Your task to perform on an android device: Open the calendar app, open the side menu, and click the "Day" option Image 0: 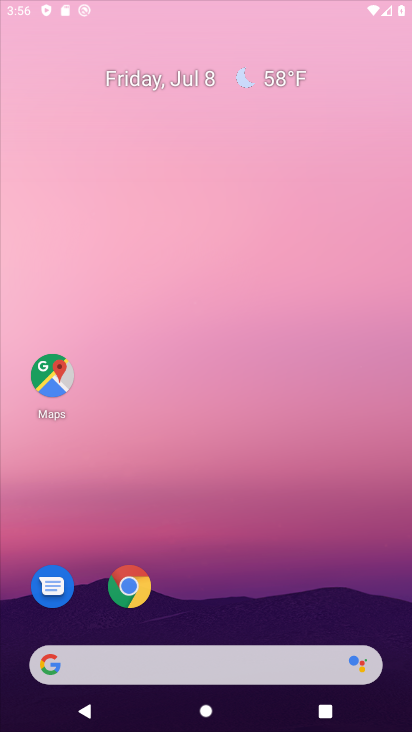
Step 0: drag from (245, 400) to (314, 49)
Your task to perform on an android device: Open the calendar app, open the side menu, and click the "Day" option Image 1: 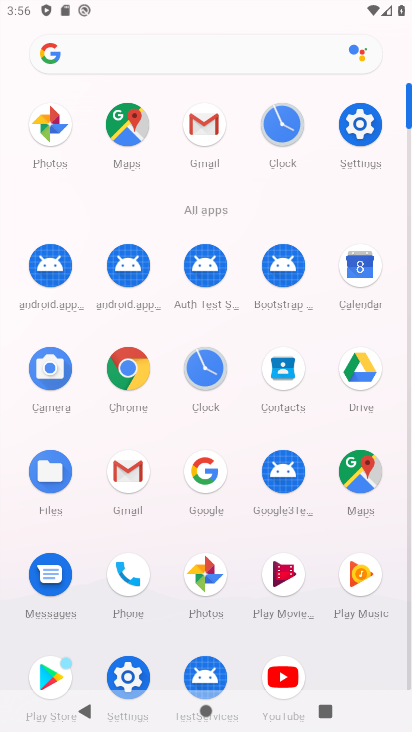
Step 1: click (367, 264)
Your task to perform on an android device: Open the calendar app, open the side menu, and click the "Day" option Image 2: 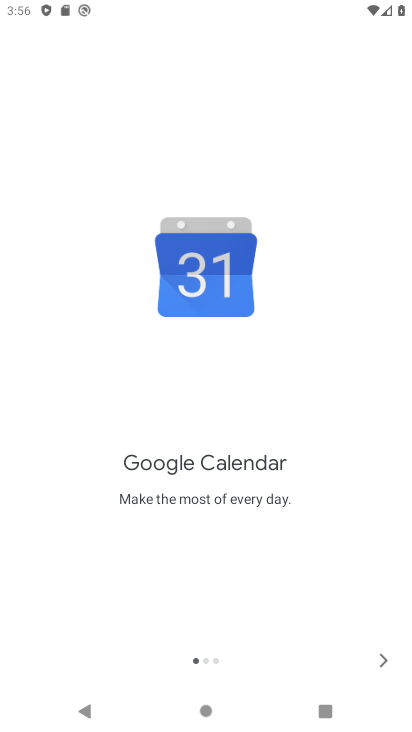
Step 2: click (393, 667)
Your task to perform on an android device: Open the calendar app, open the side menu, and click the "Day" option Image 3: 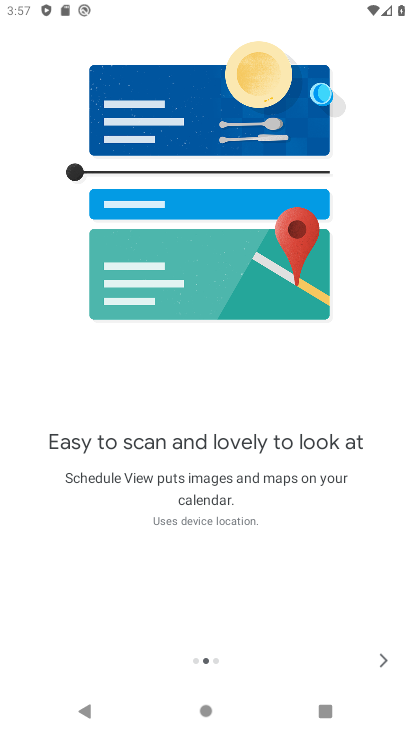
Step 3: click (385, 668)
Your task to perform on an android device: Open the calendar app, open the side menu, and click the "Day" option Image 4: 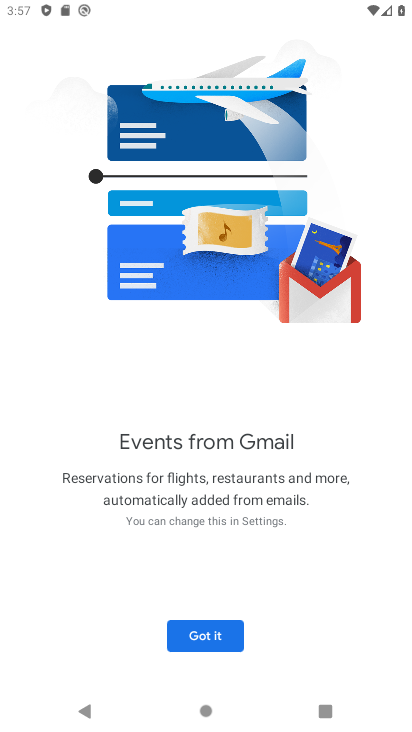
Step 4: click (194, 630)
Your task to perform on an android device: Open the calendar app, open the side menu, and click the "Day" option Image 5: 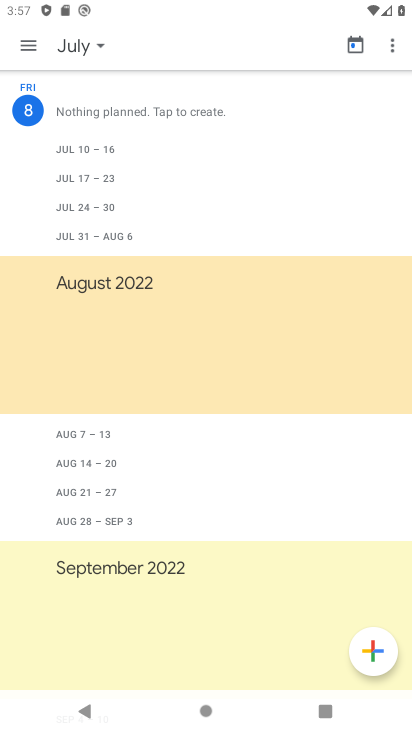
Step 5: click (33, 58)
Your task to perform on an android device: Open the calendar app, open the side menu, and click the "Day" option Image 6: 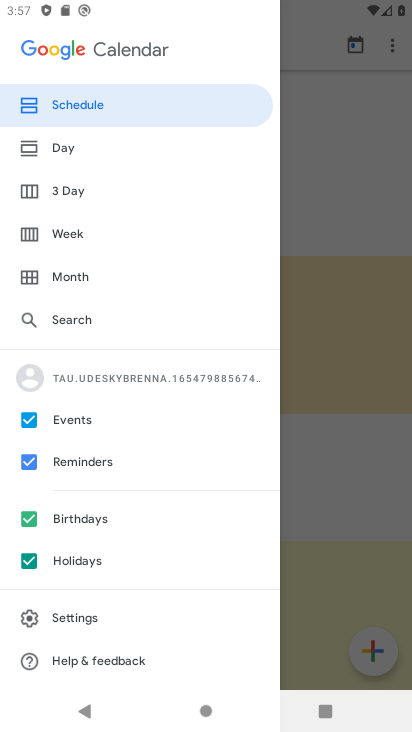
Step 6: click (101, 147)
Your task to perform on an android device: Open the calendar app, open the side menu, and click the "Day" option Image 7: 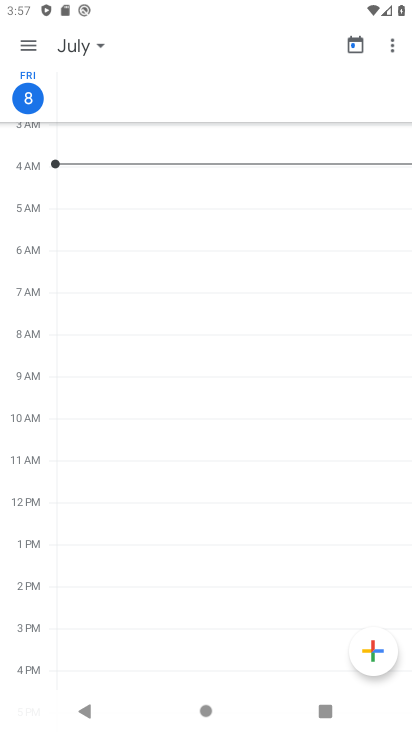
Step 7: task complete